Your task to perform on an android device: set the stopwatch Image 0: 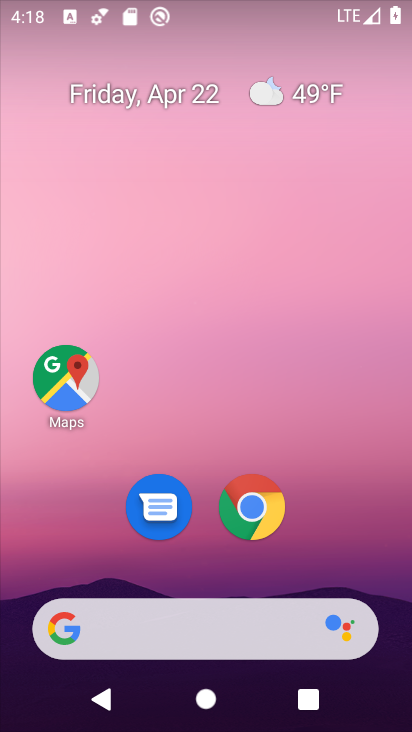
Step 0: drag from (382, 645) to (344, 113)
Your task to perform on an android device: set the stopwatch Image 1: 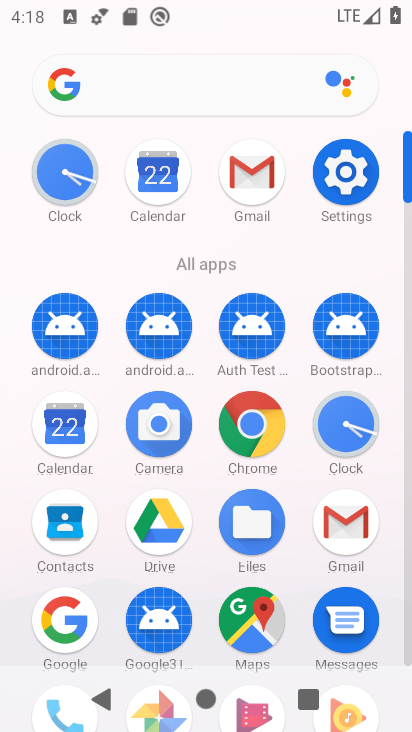
Step 1: click (409, 651)
Your task to perform on an android device: set the stopwatch Image 2: 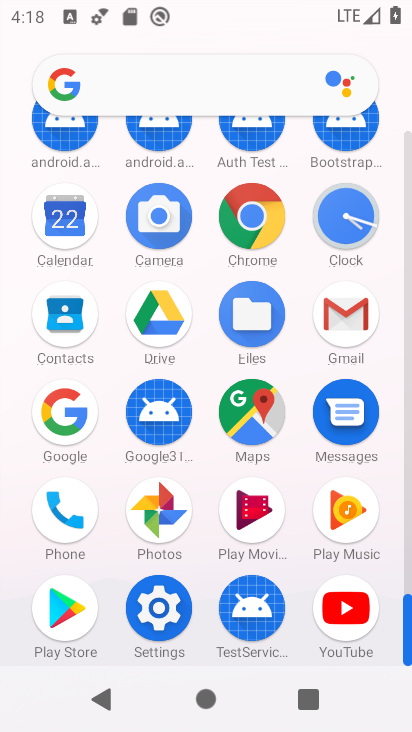
Step 2: click (341, 210)
Your task to perform on an android device: set the stopwatch Image 3: 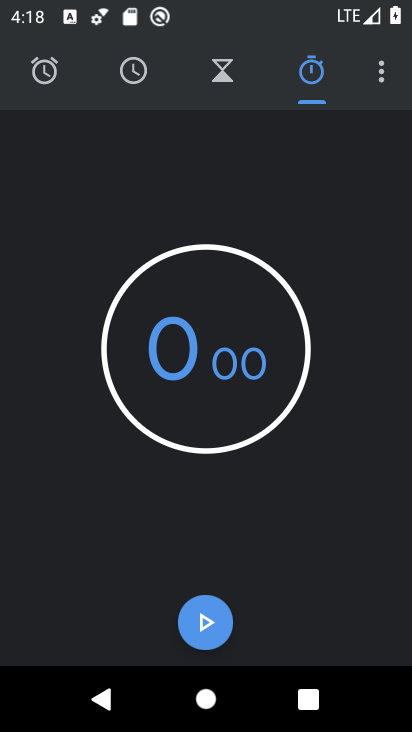
Step 3: task complete